Your task to perform on an android device: show emergency info Image 0: 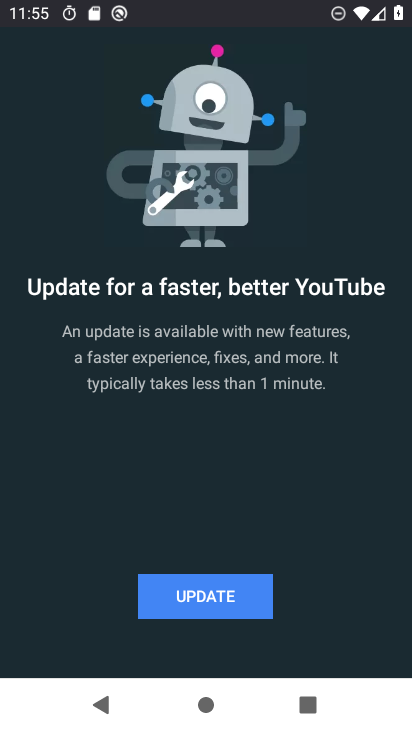
Step 0: press home button
Your task to perform on an android device: show emergency info Image 1: 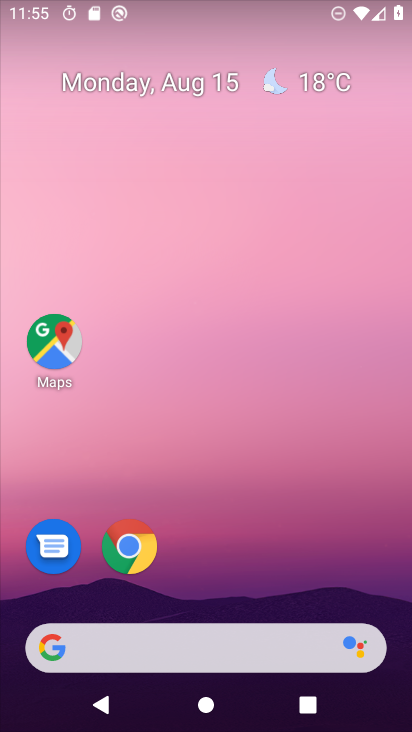
Step 1: drag from (226, 447) to (226, 99)
Your task to perform on an android device: show emergency info Image 2: 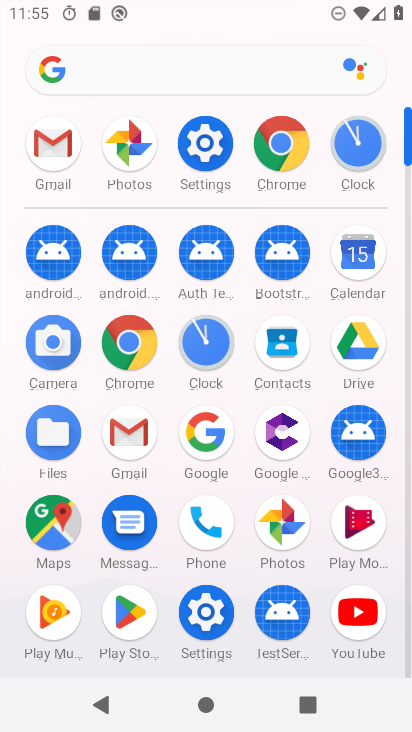
Step 2: click (206, 143)
Your task to perform on an android device: show emergency info Image 3: 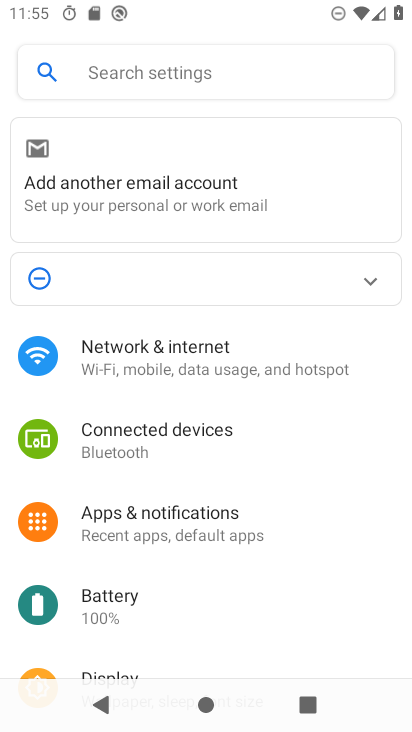
Step 3: drag from (153, 658) to (130, 255)
Your task to perform on an android device: show emergency info Image 4: 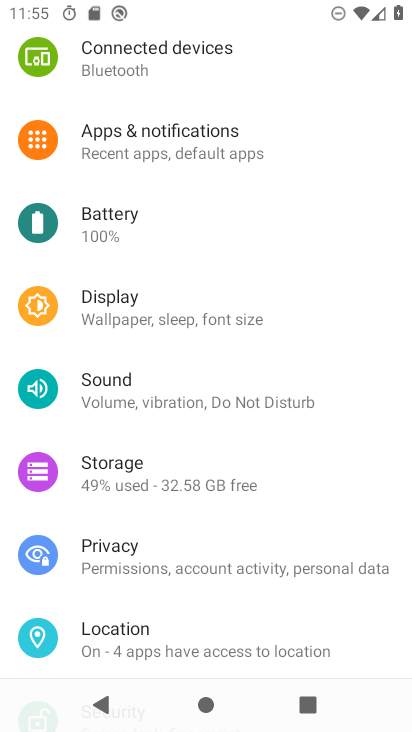
Step 4: drag from (159, 643) to (130, 356)
Your task to perform on an android device: show emergency info Image 5: 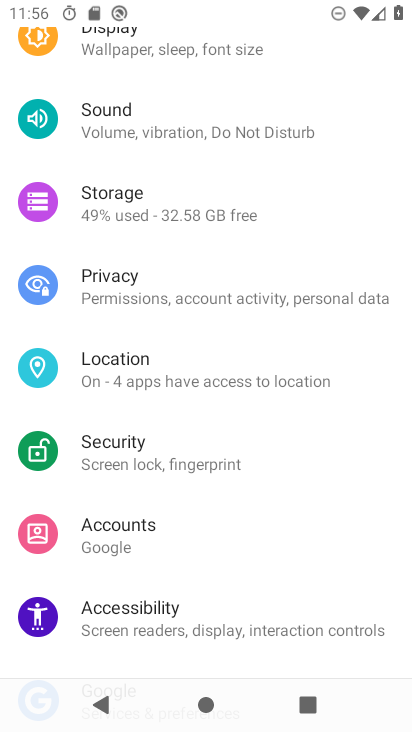
Step 5: drag from (131, 646) to (126, 246)
Your task to perform on an android device: show emergency info Image 6: 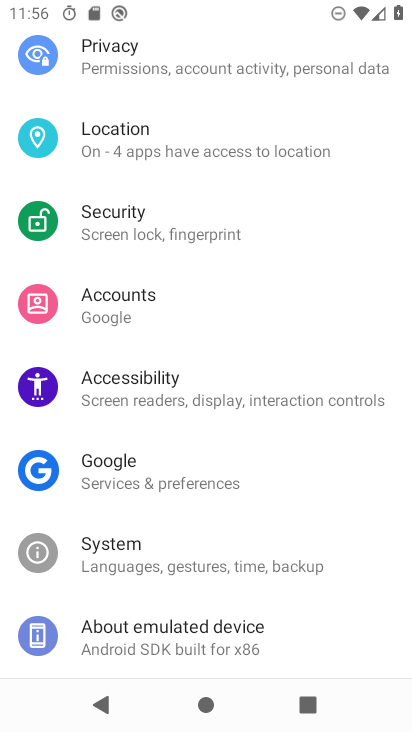
Step 6: click (137, 630)
Your task to perform on an android device: show emergency info Image 7: 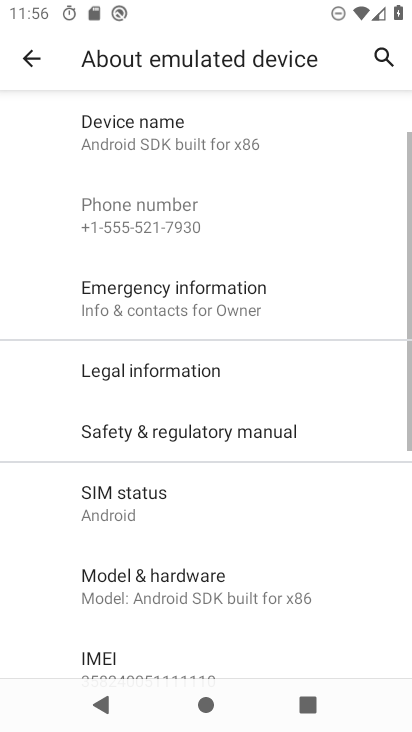
Step 7: click (119, 303)
Your task to perform on an android device: show emergency info Image 8: 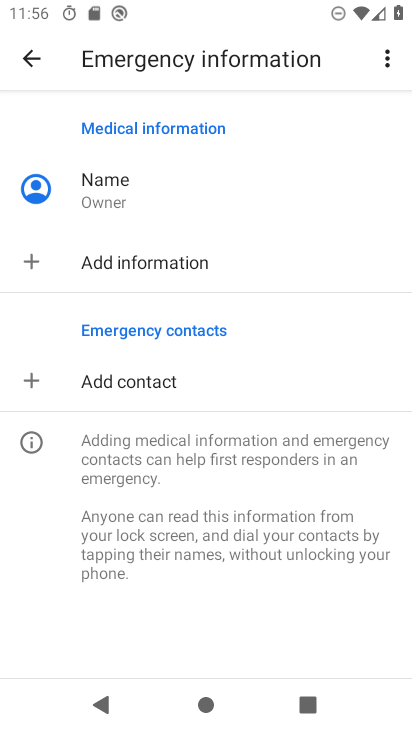
Step 8: task complete